Your task to perform on an android device: toggle notifications settings in the gmail app Image 0: 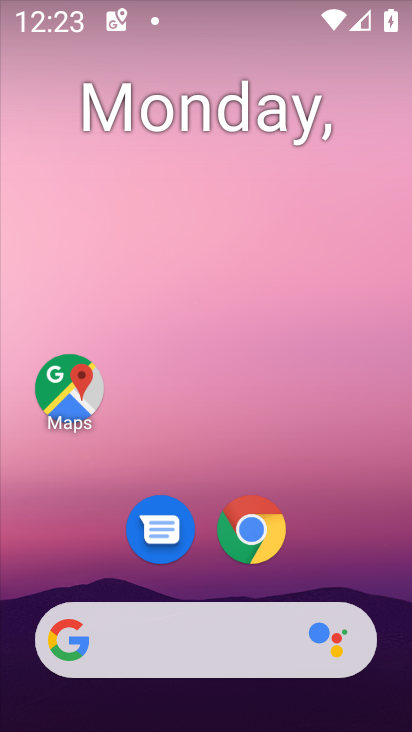
Step 0: drag from (269, 619) to (268, 163)
Your task to perform on an android device: toggle notifications settings in the gmail app Image 1: 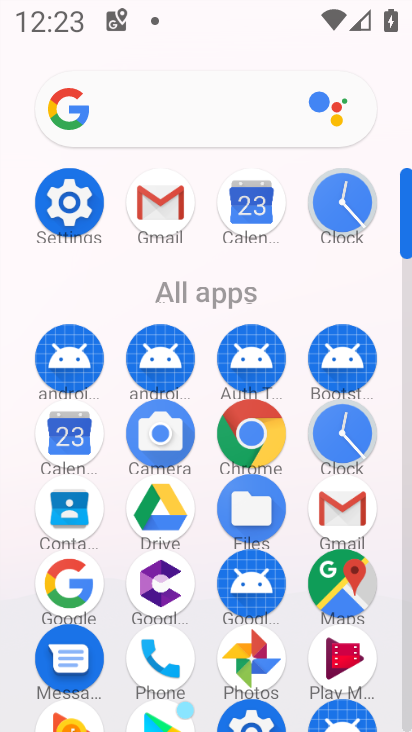
Step 1: click (345, 509)
Your task to perform on an android device: toggle notifications settings in the gmail app Image 2: 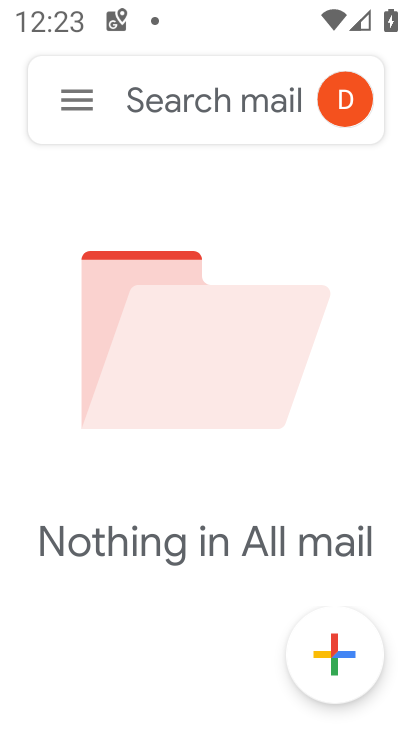
Step 2: click (69, 102)
Your task to perform on an android device: toggle notifications settings in the gmail app Image 3: 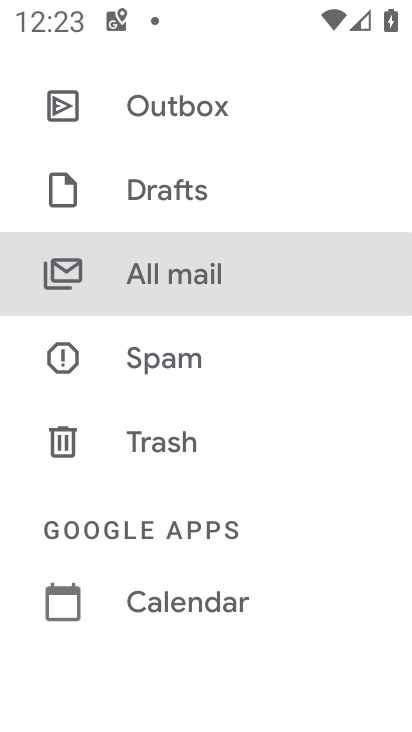
Step 3: drag from (167, 577) to (186, 141)
Your task to perform on an android device: toggle notifications settings in the gmail app Image 4: 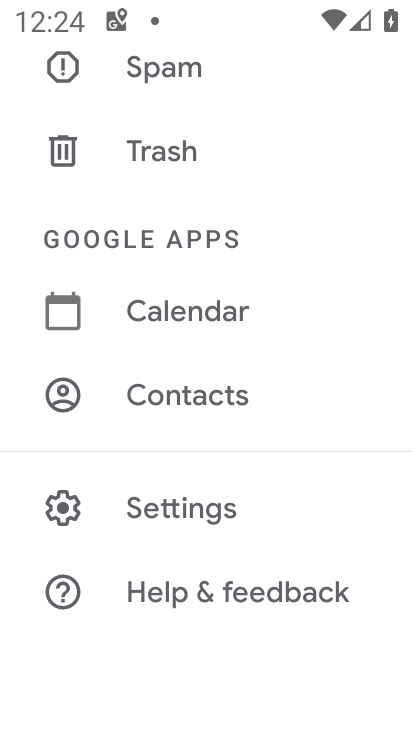
Step 4: click (164, 497)
Your task to perform on an android device: toggle notifications settings in the gmail app Image 5: 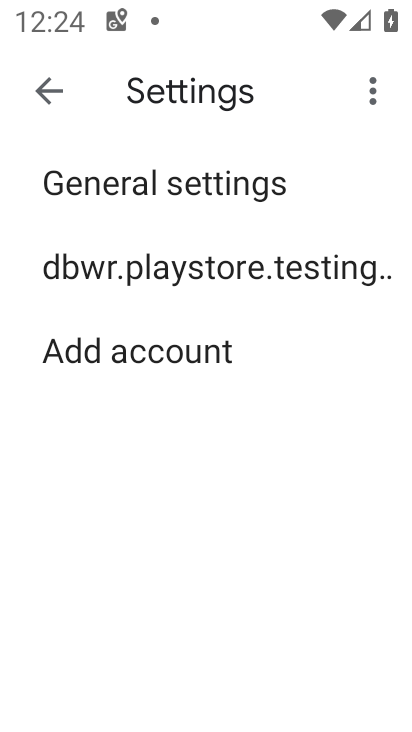
Step 5: click (209, 282)
Your task to perform on an android device: toggle notifications settings in the gmail app Image 6: 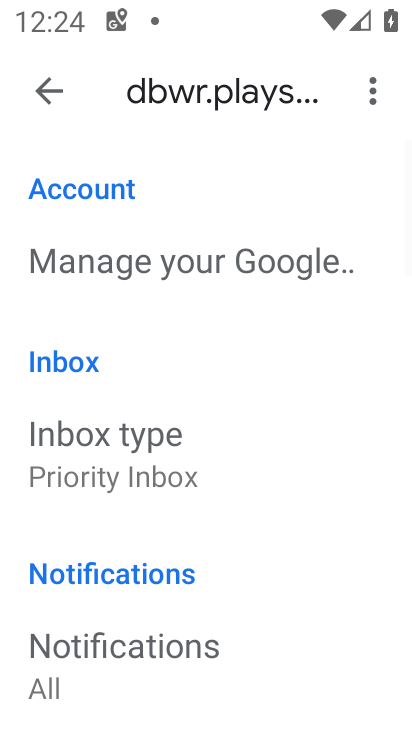
Step 6: drag from (183, 631) to (208, 127)
Your task to perform on an android device: toggle notifications settings in the gmail app Image 7: 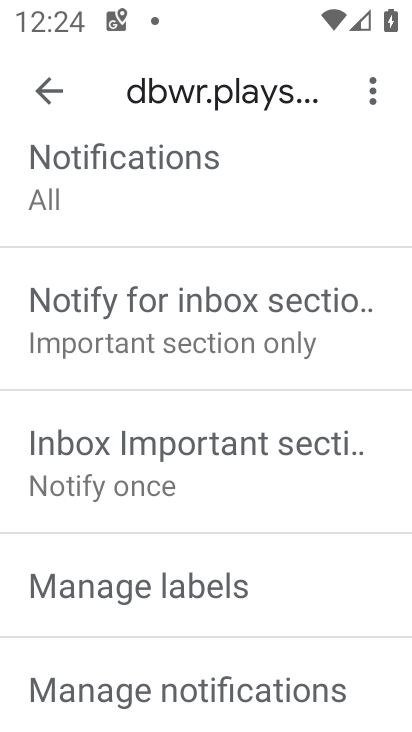
Step 7: drag from (152, 574) to (188, 255)
Your task to perform on an android device: toggle notifications settings in the gmail app Image 8: 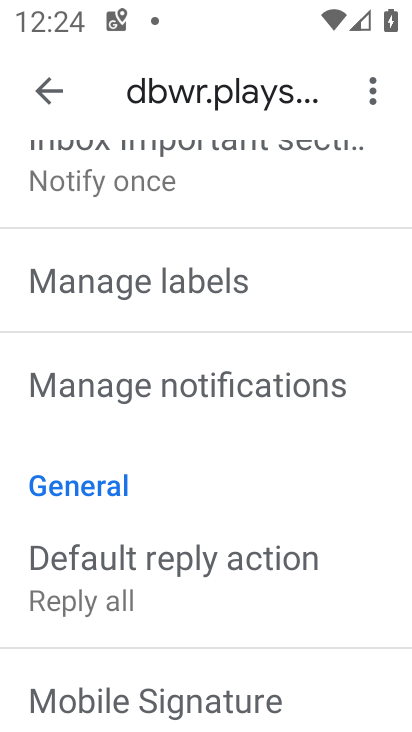
Step 8: click (152, 388)
Your task to perform on an android device: toggle notifications settings in the gmail app Image 9: 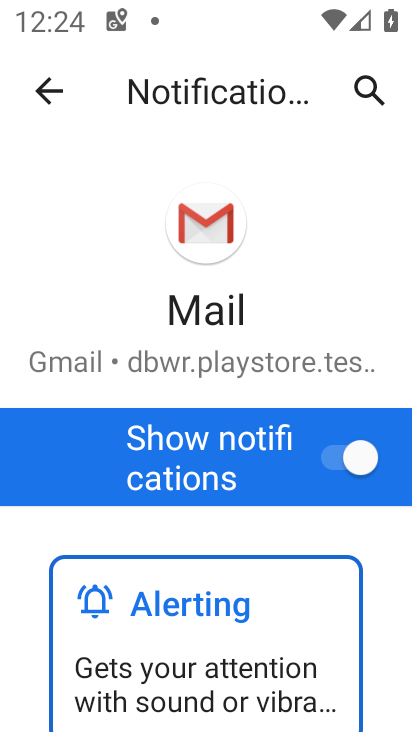
Step 9: click (347, 453)
Your task to perform on an android device: toggle notifications settings in the gmail app Image 10: 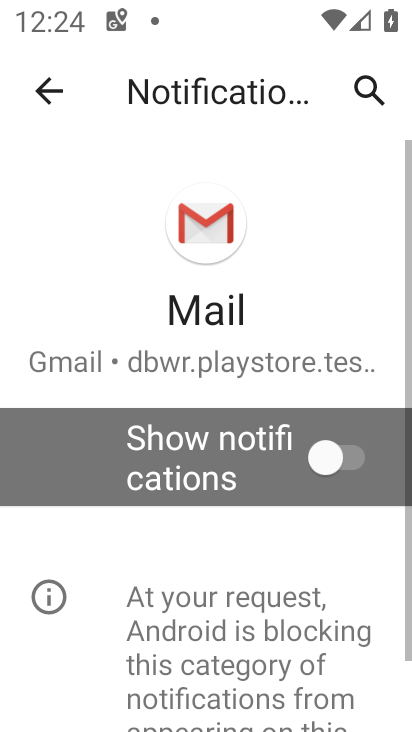
Step 10: task complete